Your task to perform on an android device: Open network settings Image 0: 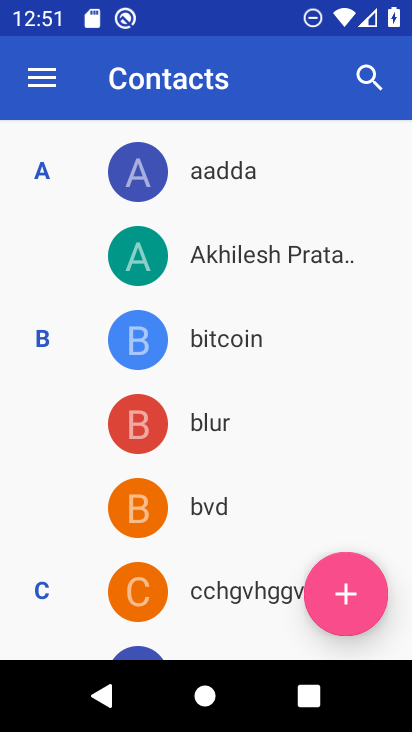
Step 0: press back button
Your task to perform on an android device: Open network settings Image 1: 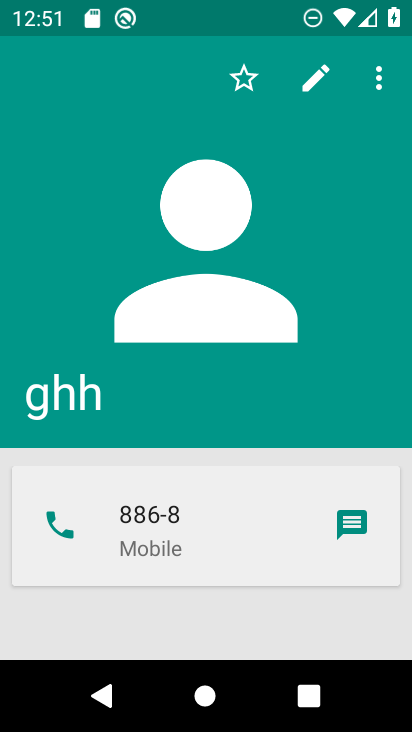
Step 1: press back button
Your task to perform on an android device: Open network settings Image 2: 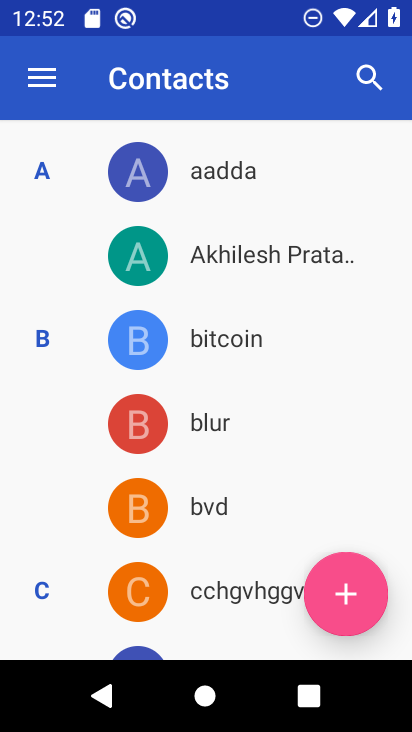
Step 2: press back button
Your task to perform on an android device: Open network settings Image 3: 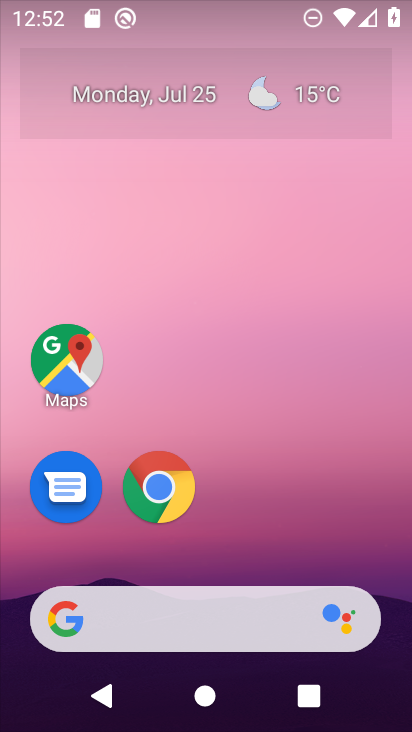
Step 3: drag from (236, 540) to (242, 31)
Your task to perform on an android device: Open network settings Image 4: 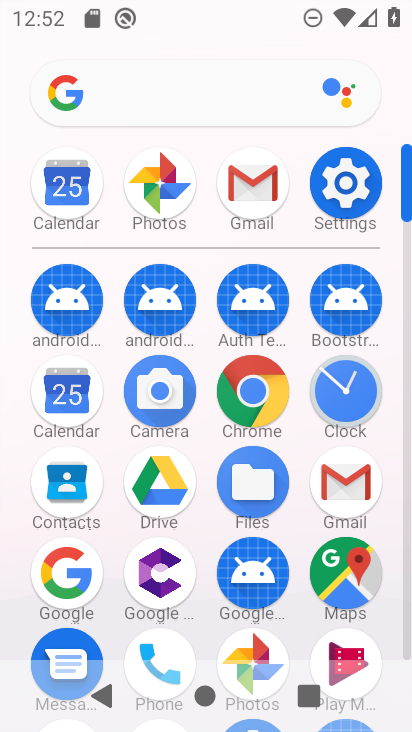
Step 4: click (339, 182)
Your task to perform on an android device: Open network settings Image 5: 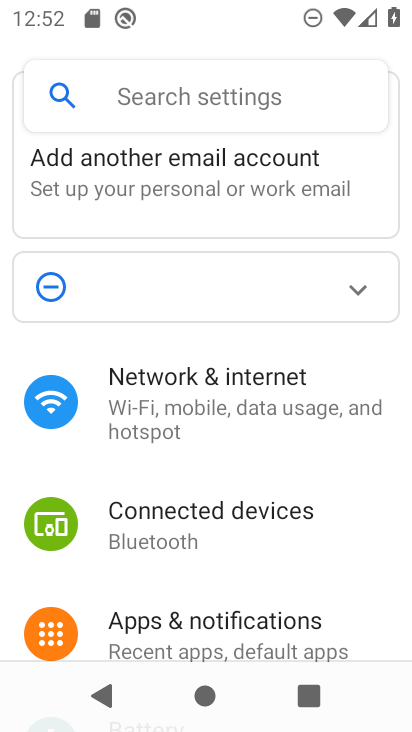
Step 5: click (212, 389)
Your task to perform on an android device: Open network settings Image 6: 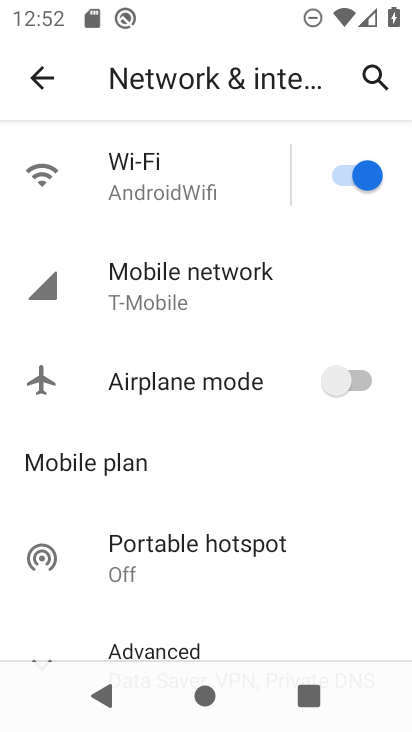
Step 6: task complete